Your task to perform on an android device: What's the price of the TCL TV? Image 0: 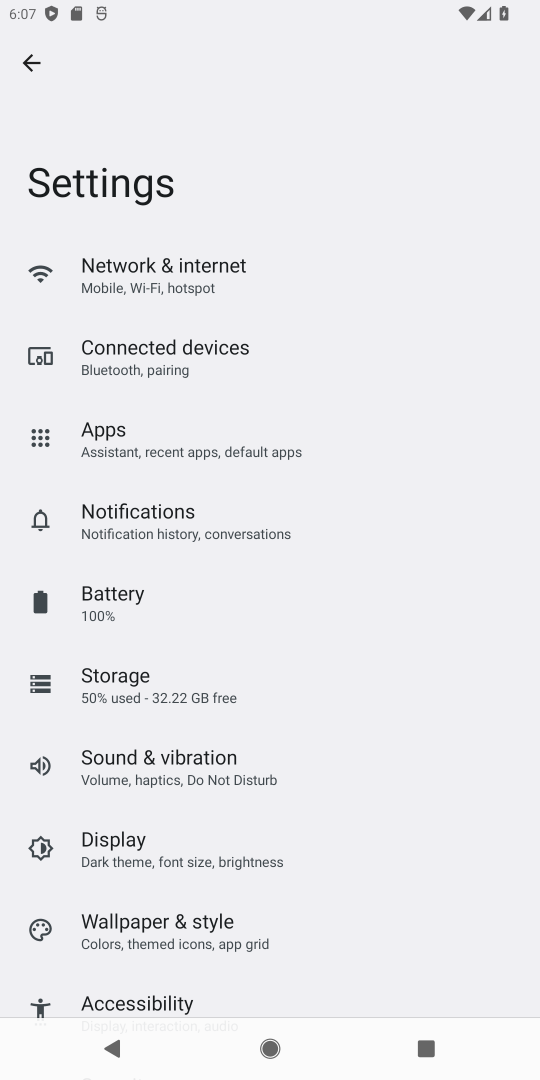
Step 0: press home button
Your task to perform on an android device: What's the price of the TCL TV? Image 1: 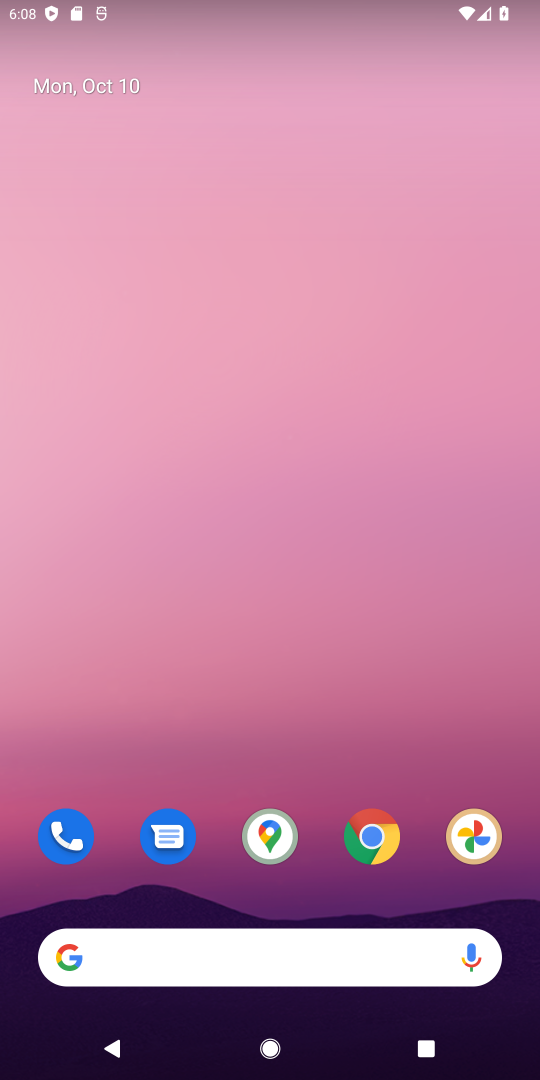
Step 1: click (367, 837)
Your task to perform on an android device: What's the price of the TCL TV? Image 2: 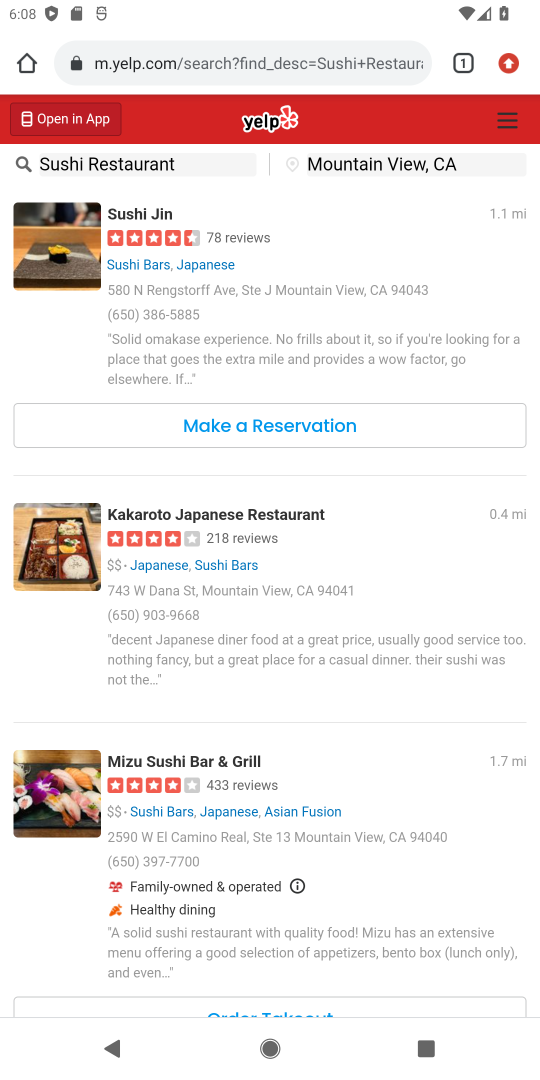
Step 2: click (215, 40)
Your task to perform on an android device: What's the price of the TCL TV? Image 3: 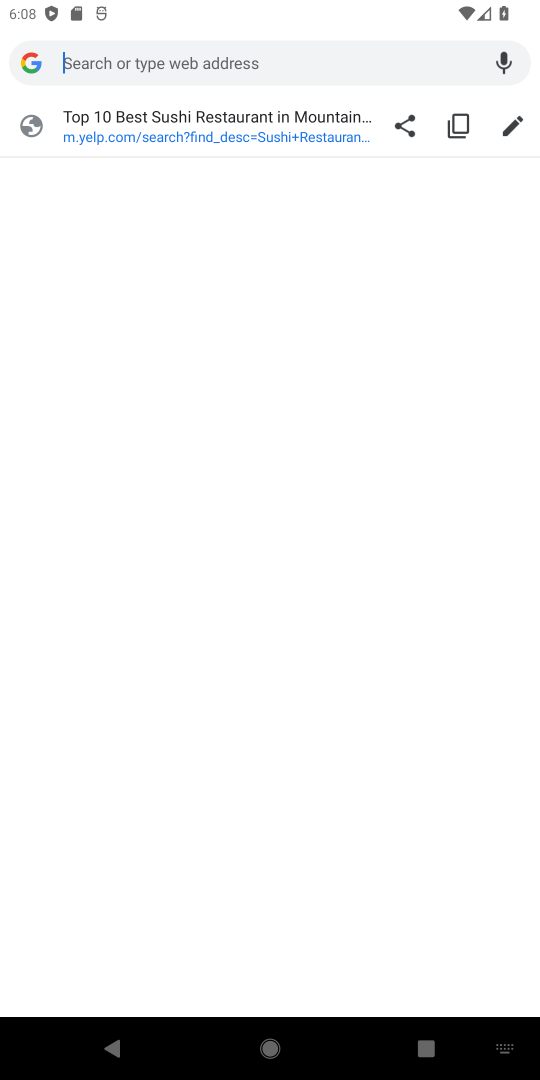
Step 3: type "What's the price of the TCL TV?"
Your task to perform on an android device: What's the price of the TCL TV? Image 4: 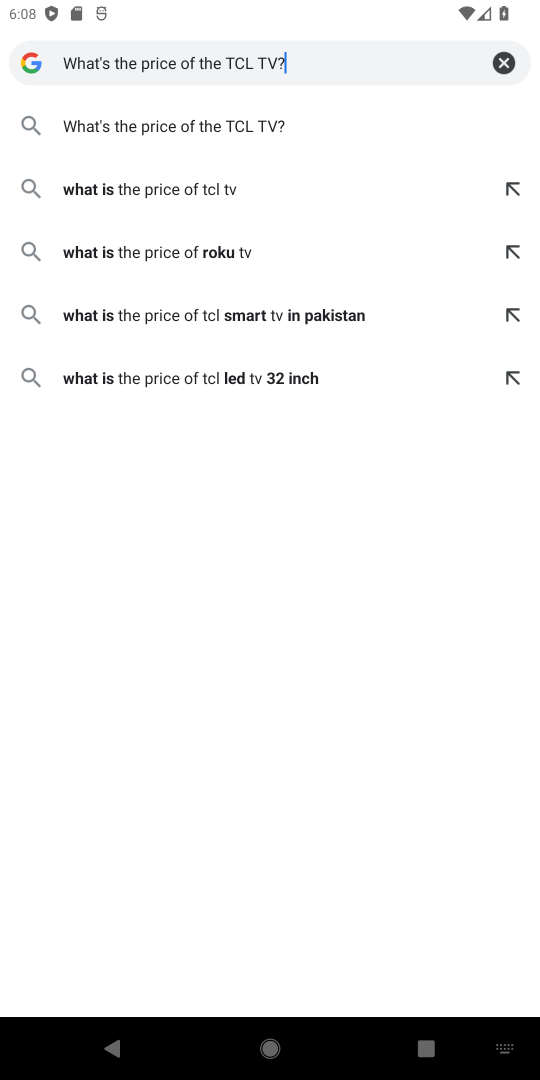
Step 4: click (132, 132)
Your task to perform on an android device: What's the price of the TCL TV? Image 5: 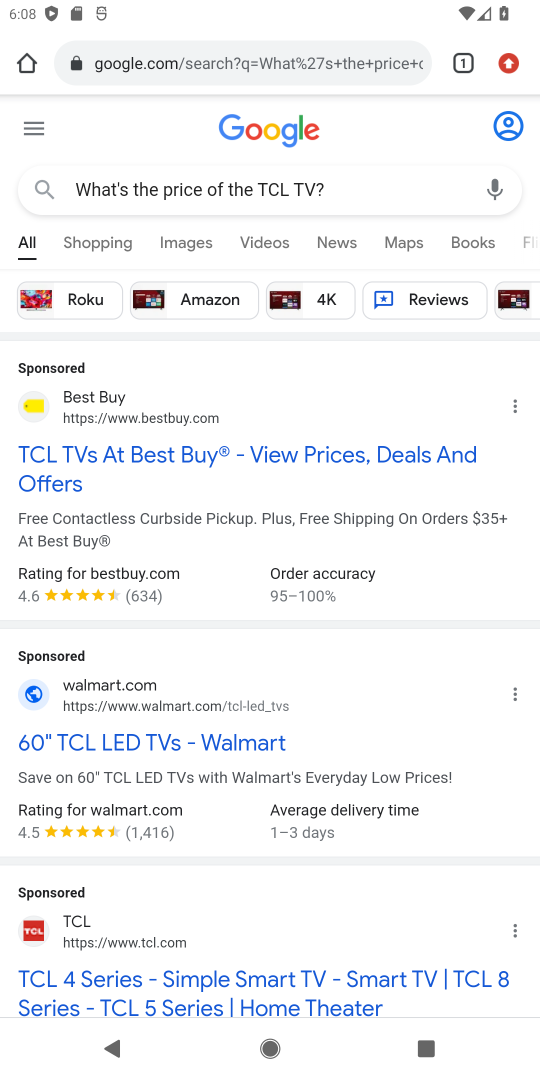
Step 5: click (106, 472)
Your task to perform on an android device: What's the price of the TCL TV? Image 6: 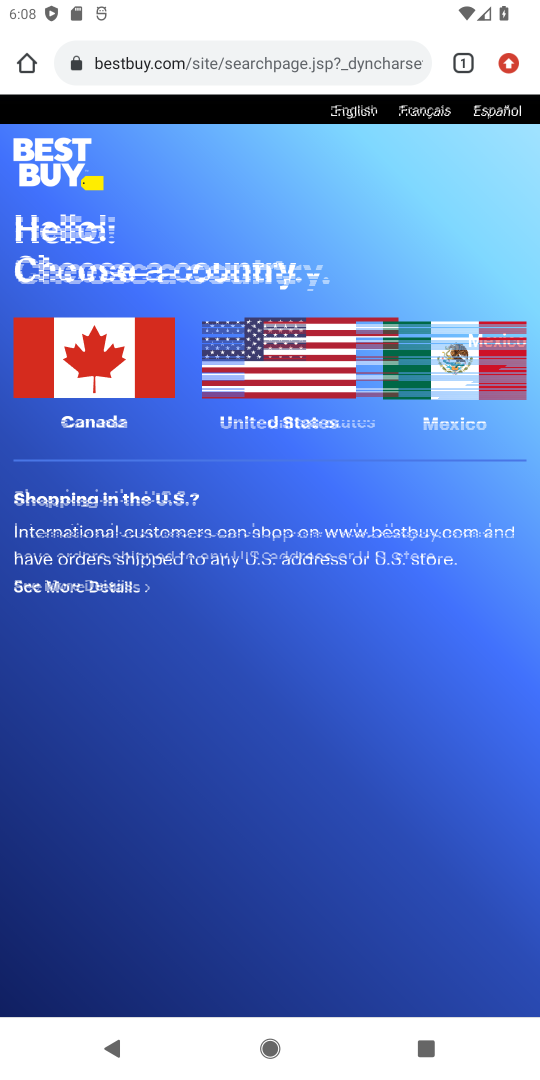
Step 6: click (263, 370)
Your task to perform on an android device: What's the price of the TCL TV? Image 7: 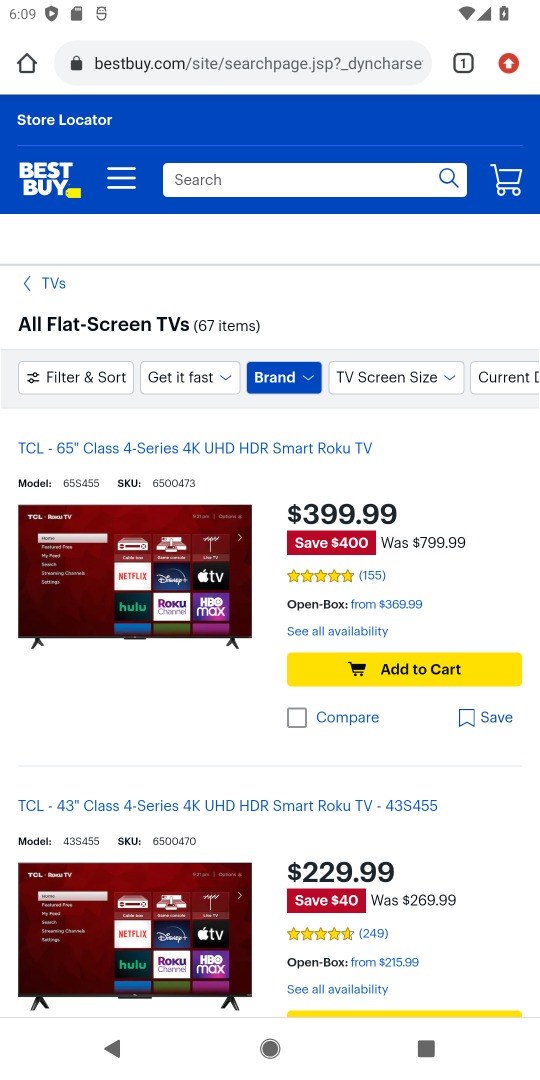
Step 7: drag from (271, 755) to (250, 206)
Your task to perform on an android device: What's the price of the TCL TV? Image 8: 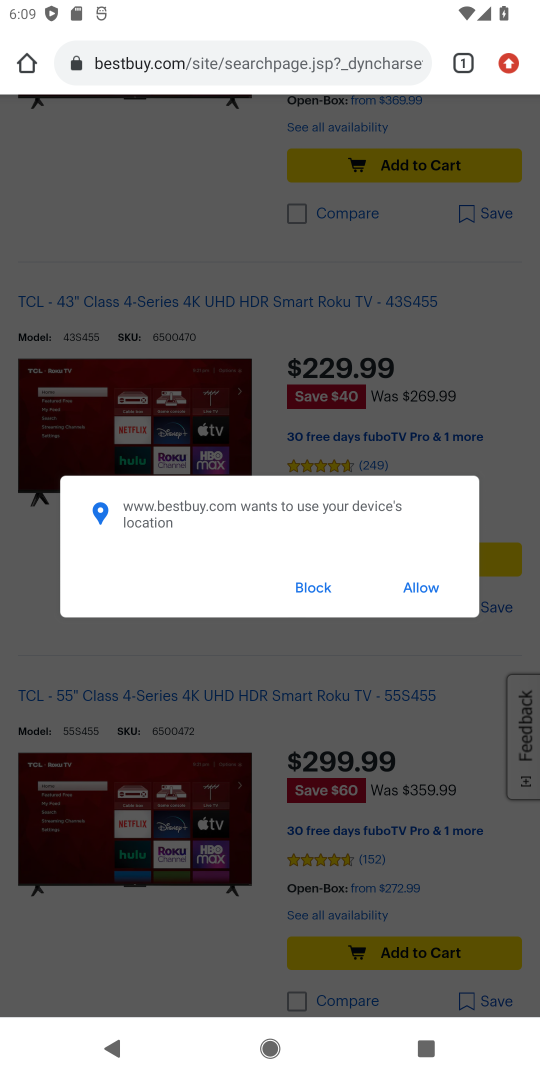
Step 8: click (308, 581)
Your task to perform on an android device: What's the price of the TCL TV? Image 9: 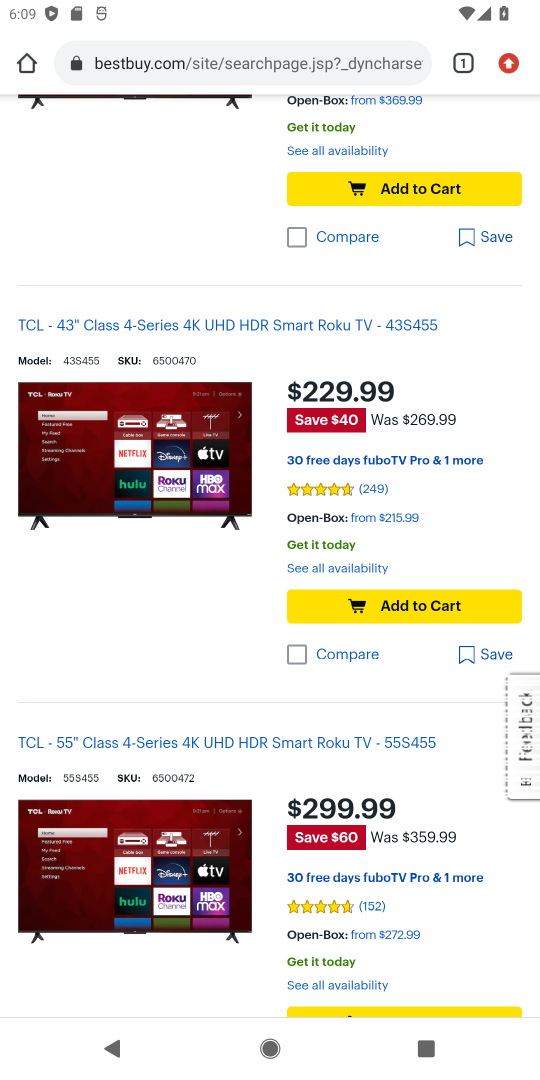
Step 9: task complete